Your task to perform on an android device: Go to Maps Image 0: 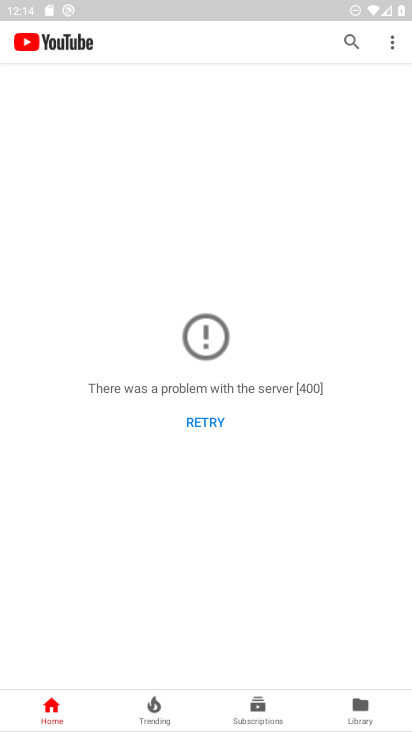
Step 0: press back button
Your task to perform on an android device: Go to Maps Image 1: 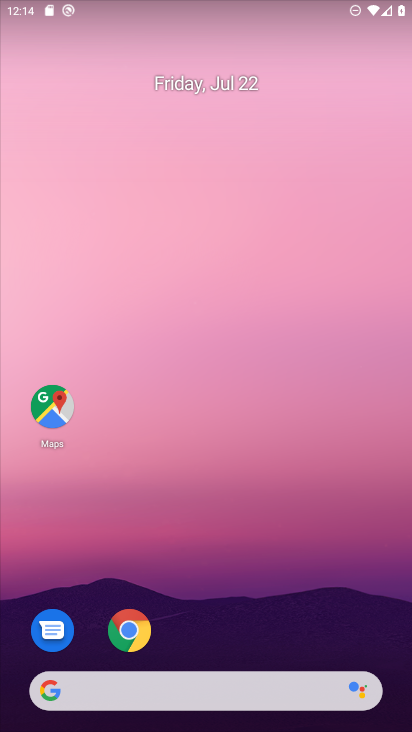
Step 1: drag from (232, 575) to (245, 56)
Your task to perform on an android device: Go to Maps Image 2: 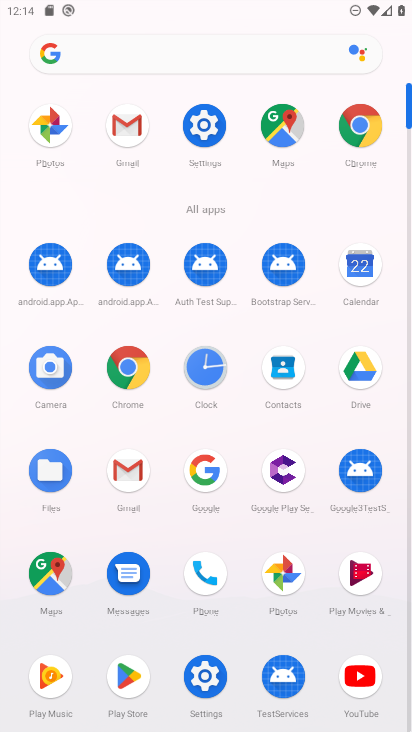
Step 2: click (54, 572)
Your task to perform on an android device: Go to Maps Image 3: 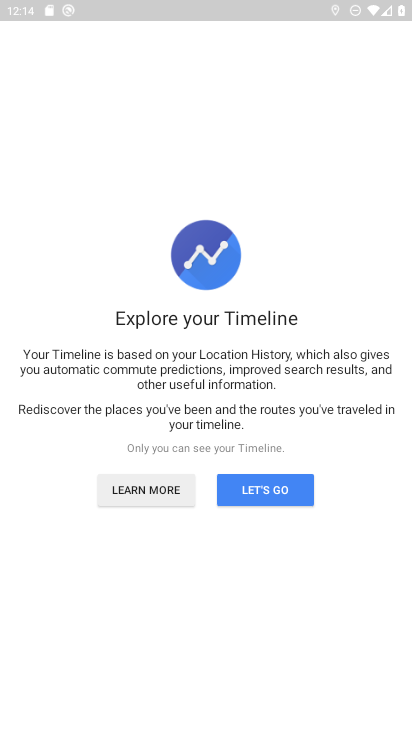
Step 3: click (260, 496)
Your task to perform on an android device: Go to Maps Image 4: 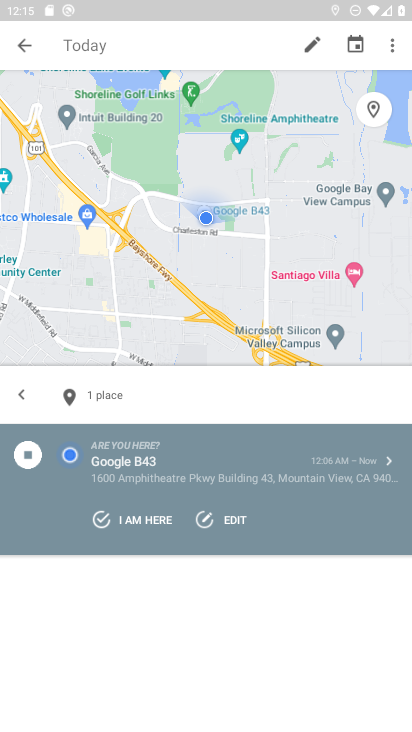
Step 4: task complete